Your task to perform on an android device: toggle data saver in the chrome app Image 0: 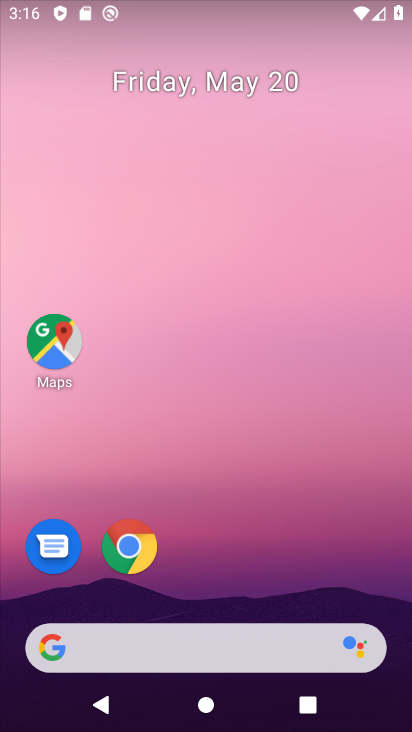
Step 0: click (131, 546)
Your task to perform on an android device: toggle data saver in the chrome app Image 1: 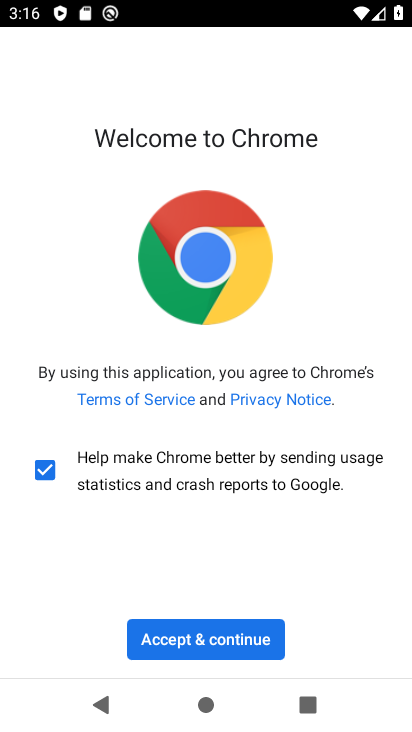
Step 1: click (173, 631)
Your task to perform on an android device: toggle data saver in the chrome app Image 2: 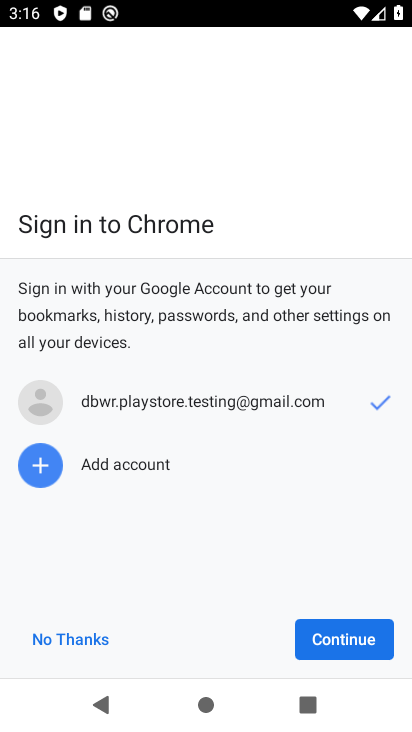
Step 2: click (335, 641)
Your task to perform on an android device: toggle data saver in the chrome app Image 3: 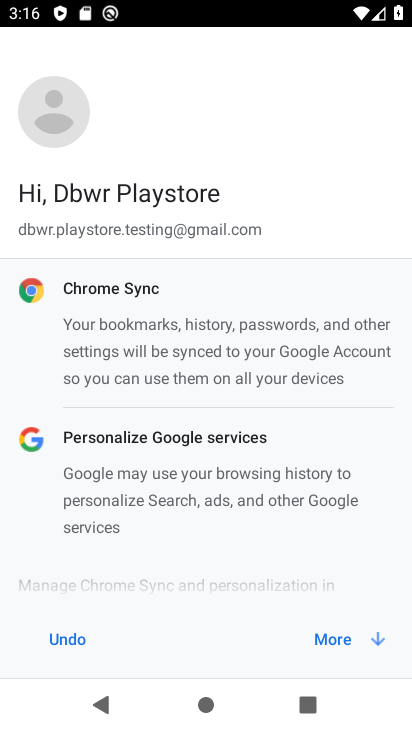
Step 3: click (335, 641)
Your task to perform on an android device: toggle data saver in the chrome app Image 4: 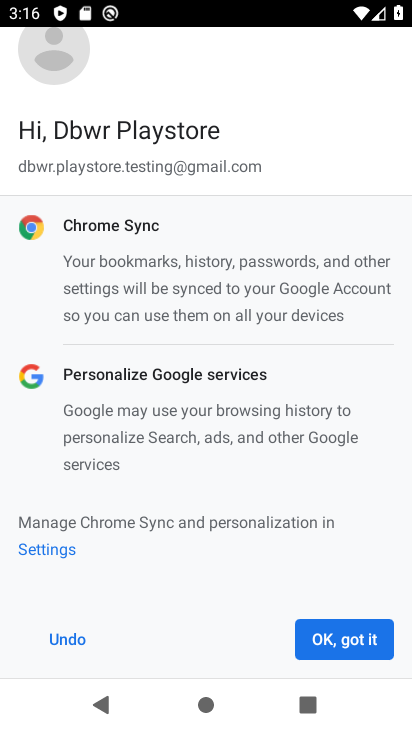
Step 4: click (335, 641)
Your task to perform on an android device: toggle data saver in the chrome app Image 5: 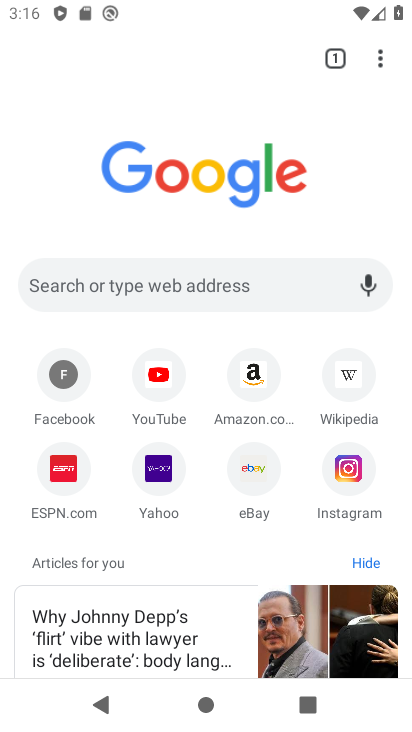
Step 5: click (379, 58)
Your task to perform on an android device: toggle data saver in the chrome app Image 6: 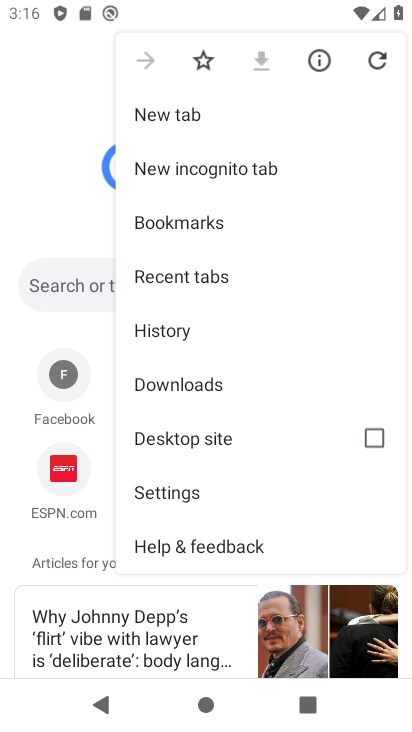
Step 6: click (164, 489)
Your task to perform on an android device: toggle data saver in the chrome app Image 7: 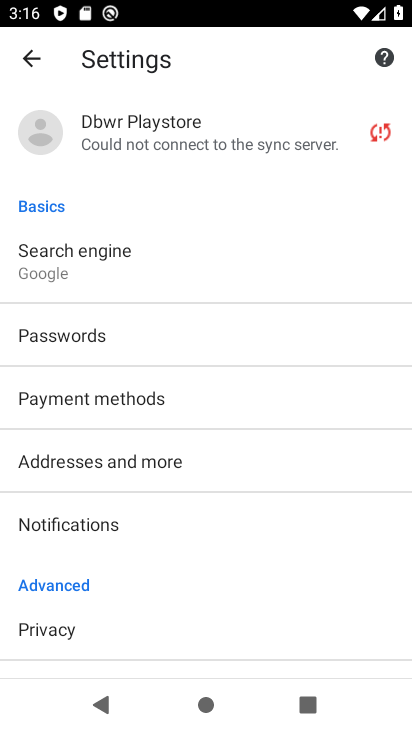
Step 7: drag from (105, 560) to (180, 392)
Your task to perform on an android device: toggle data saver in the chrome app Image 8: 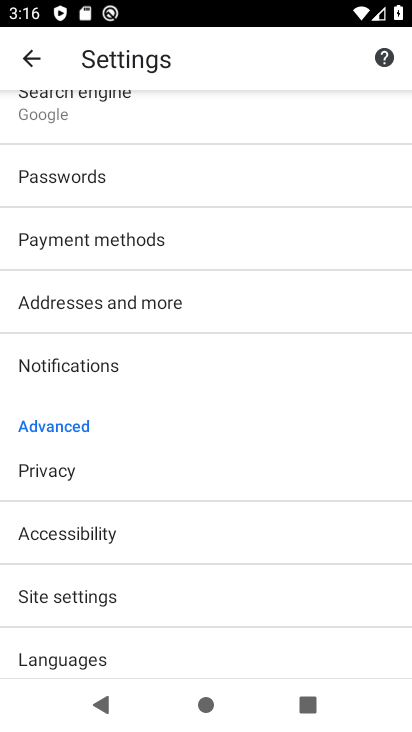
Step 8: drag from (121, 568) to (209, 436)
Your task to perform on an android device: toggle data saver in the chrome app Image 9: 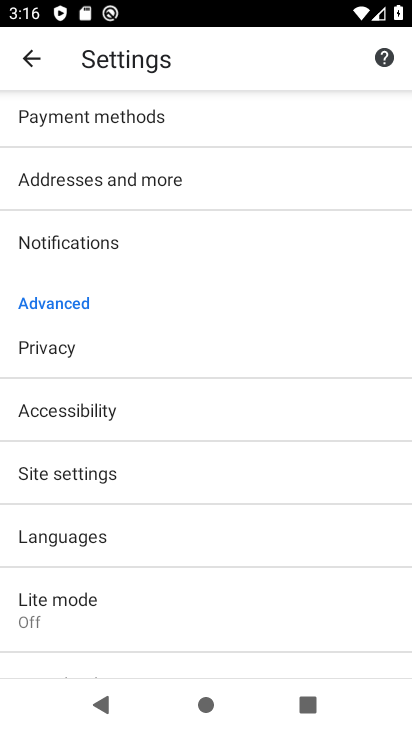
Step 9: click (65, 596)
Your task to perform on an android device: toggle data saver in the chrome app Image 10: 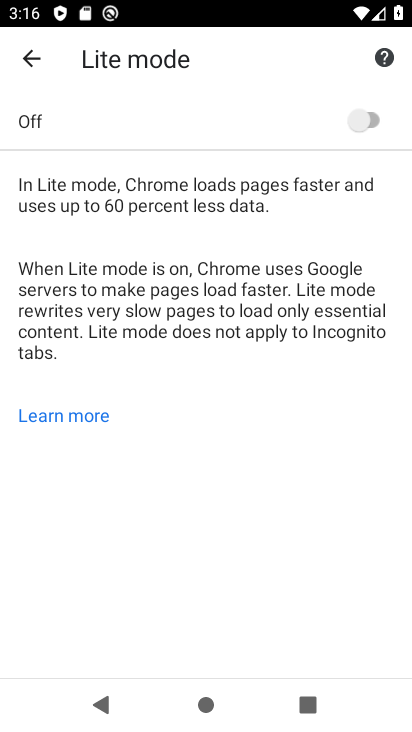
Step 10: click (355, 122)
Your task to perform on an android device: toggle data saver in the chrome app Image 11: 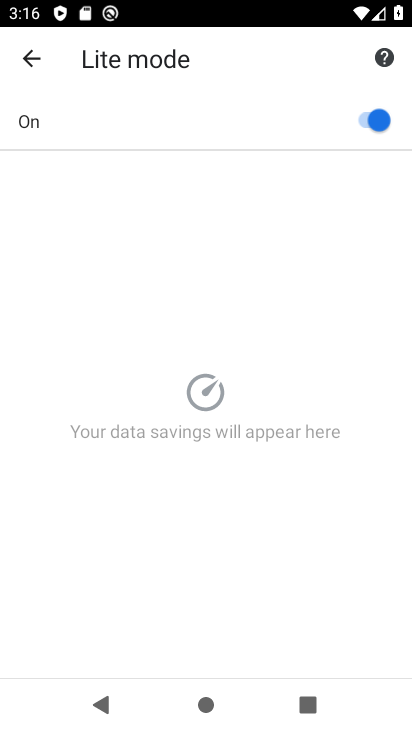
Step 11: task complete